Your task to perform on an android device: check android version Image 0: 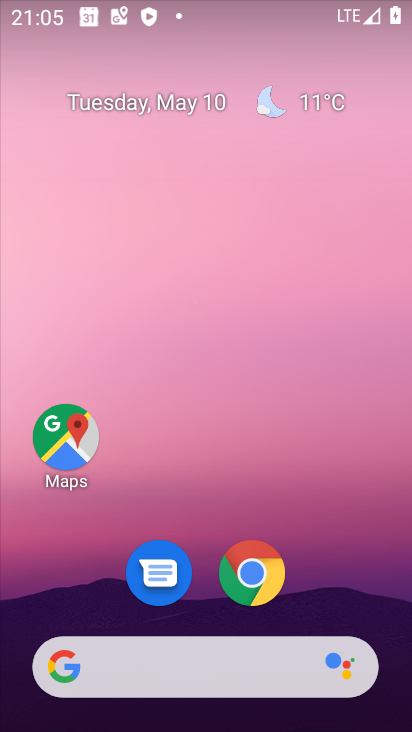
Step 0: drag from (345, 622) to (342, 37)
Your task to perform on an android device: check android version Image 1: 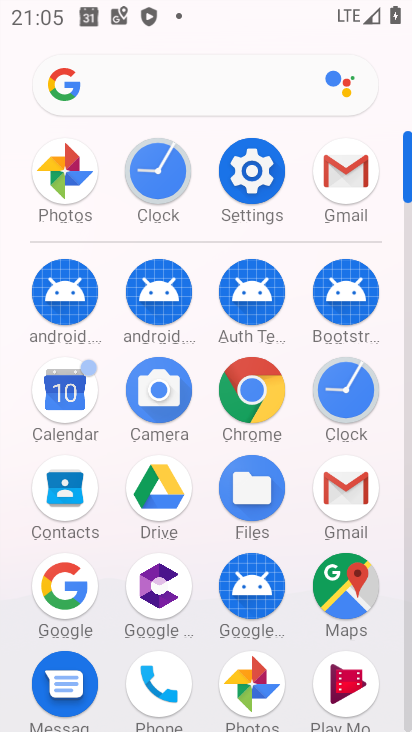
Step 1: click (252, 177)
Your task to perform on an android device: check android version Image 2: 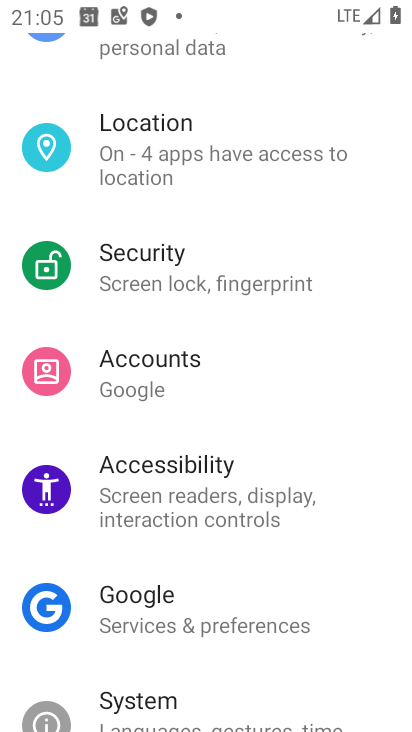
Step 2: drag from (330, 628) to (337, 63)
Your task to perform on an android device: check android version Image 3: 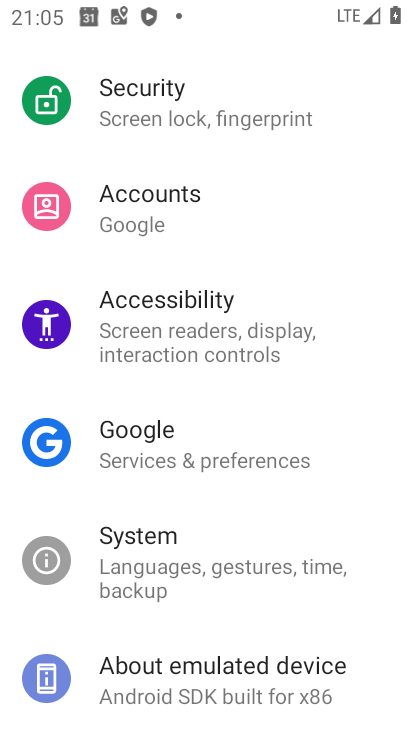
Step 3: click (169, 671)
Your task to perform on an android device: check android version Image 4: 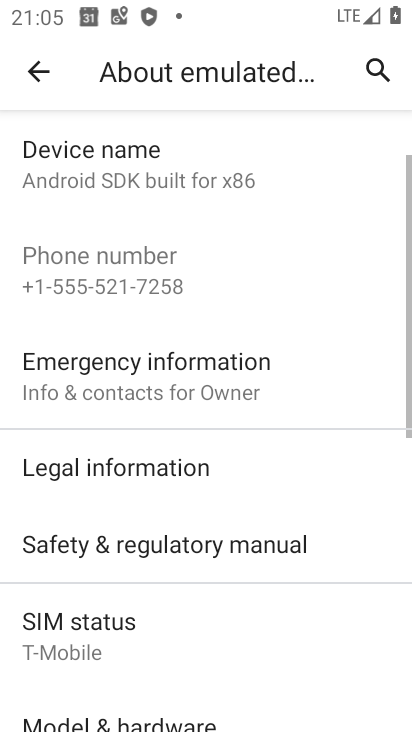
Step 4: drag from (278, 672) to (288, 129)
Your task to perform on an android device: check android version Image 5: 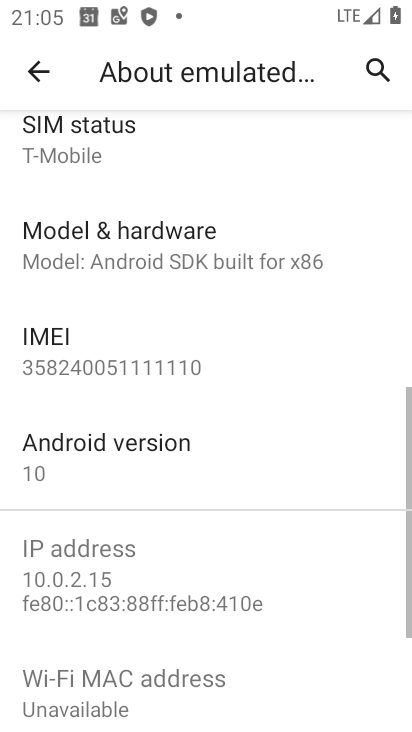
Step 5: click (92, 457)
Your task to perform on an android device: check android version Image 6: 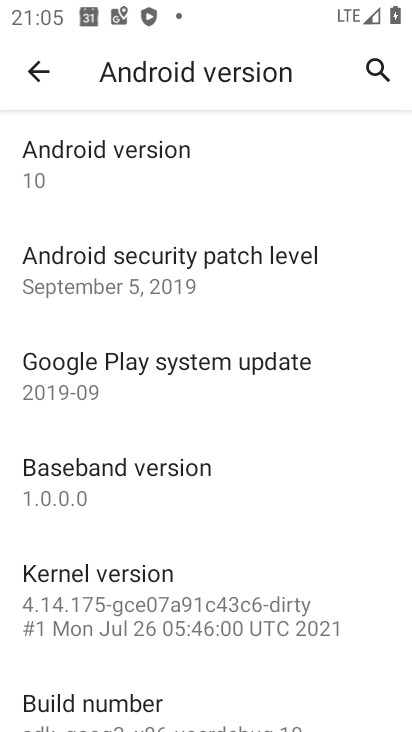
Step 6: task complete